Your task to perform on an android device: Open internet settings Image 0: 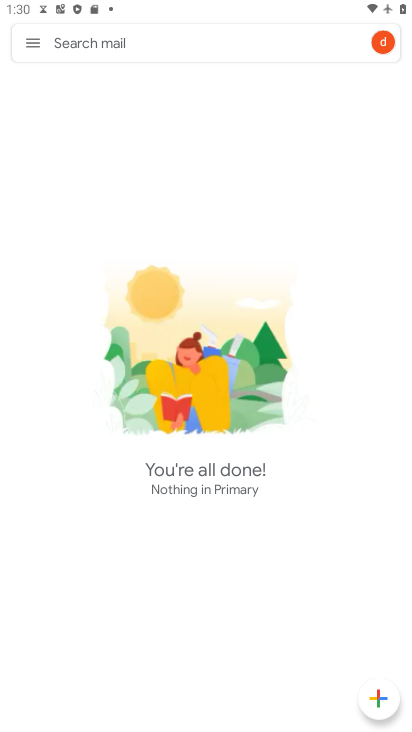
Step 0: press home button
Your task to perform on an android device: Open internet settings Image 1: 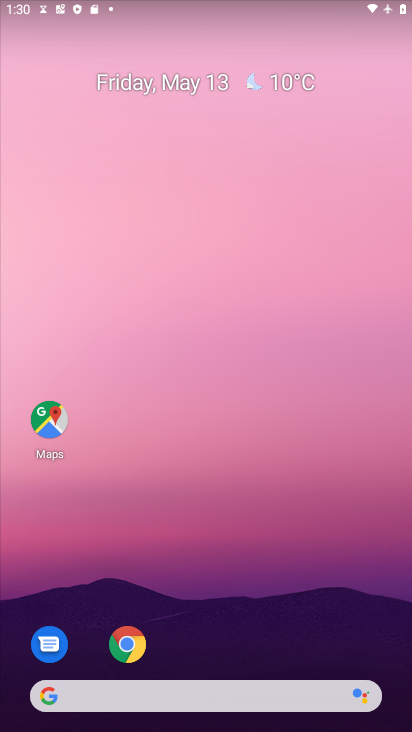
Step 1: drag from (209, 725) to (208, 142)
Your task to perform on an android device: Open internet settings Image 2: 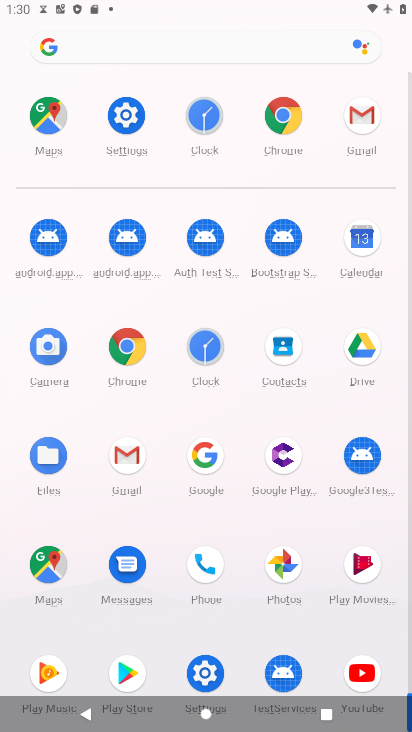
Step 2: click (129, 119)
Your task to perform on an android device: Open internet settings Image 3: 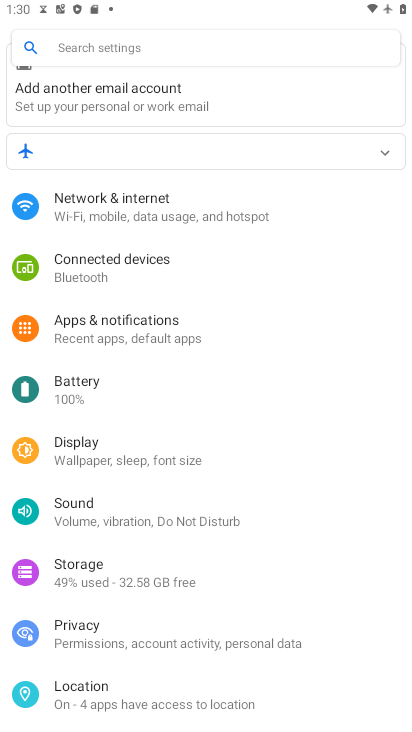
Step 3: click (135, 201)
Your task to perform on an android device: Open internet settings Image 4: 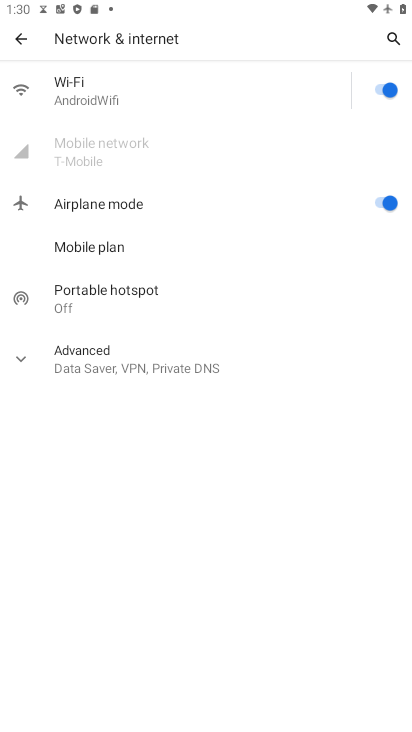
Step 4: task complete